Your task to perform on an android device: turn on the 24-hour format for clock Image 0: 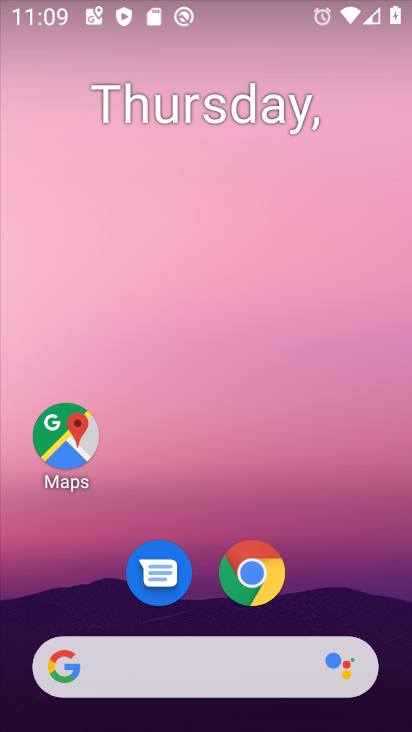
Step 0: drag from (311, 540) to (274, 103)
Your task to perform on an android device: turn on the 24-hour format for clock Image 1: 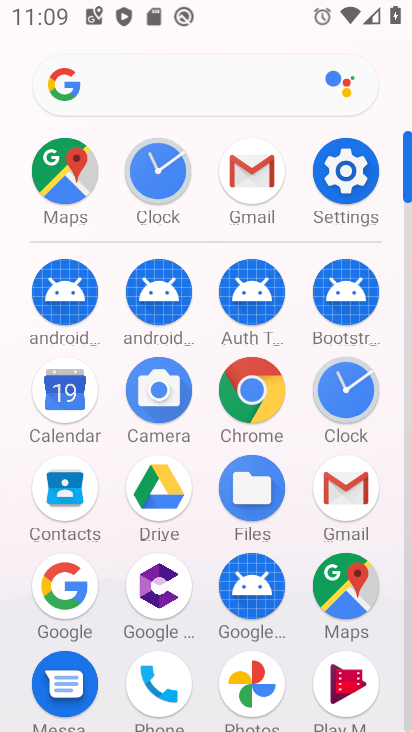
Step 1: click (322, 389)
Your task to perform on an android device: turn on the 24-hour format for clock Image 2: 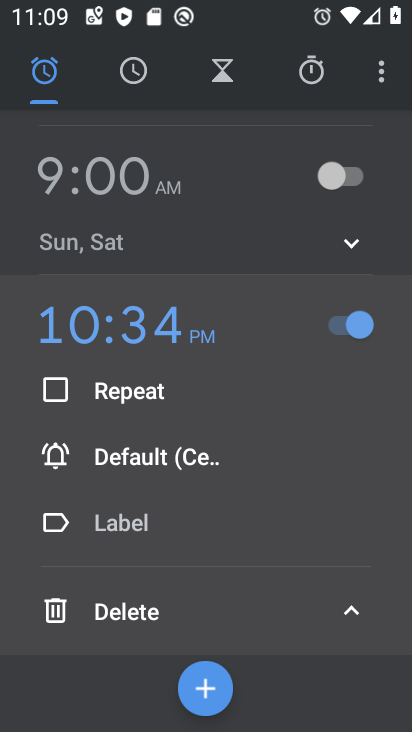
Step 2: click (385, 77)
Your task to perform on an android device: turn on the 24-hour format for clock Image 3: 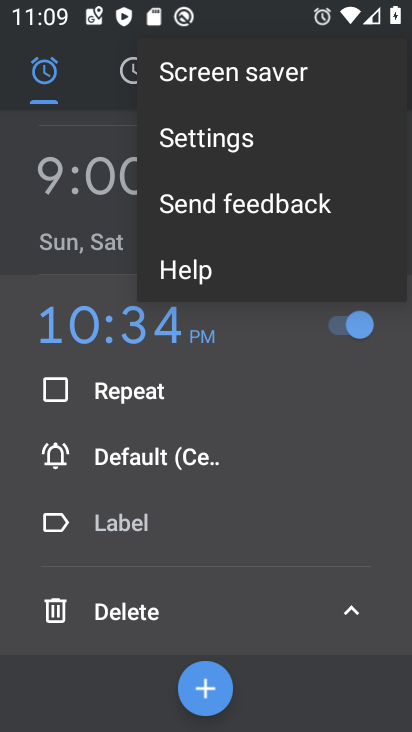
Step 3: click (217, 154)
Your task to perform on an android device: turn on the 24-hour format for clock Image 4: 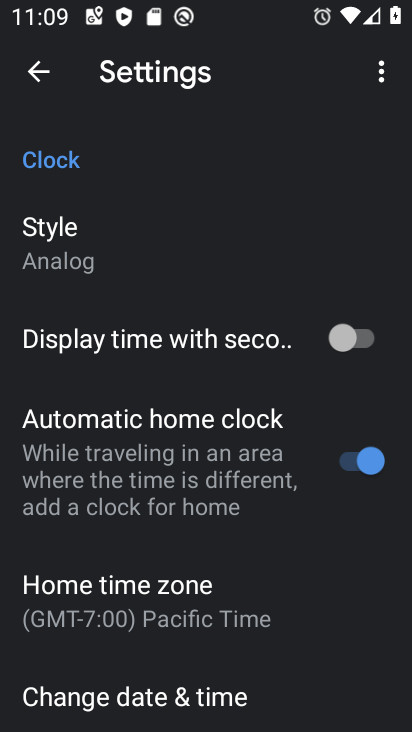
Step 4: drag from (163, 553) to (257, 219)
Your task to perform on an android device: turn on the 24-hour format for clock Image 5: 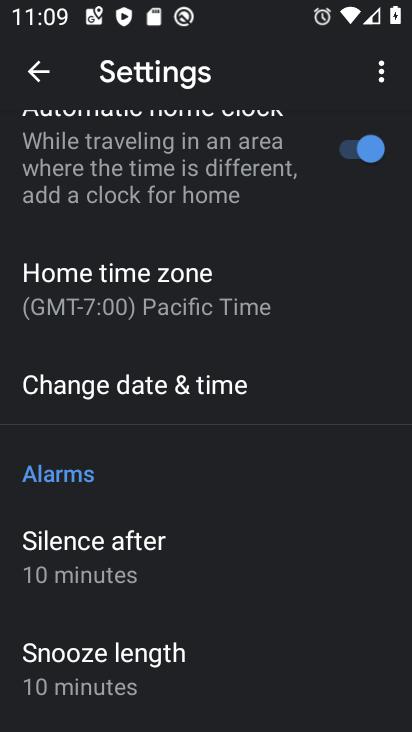
Step 5: click (157, 381)
Your task to perform on an android device: turn on the 24-hour format for clock Image 6: 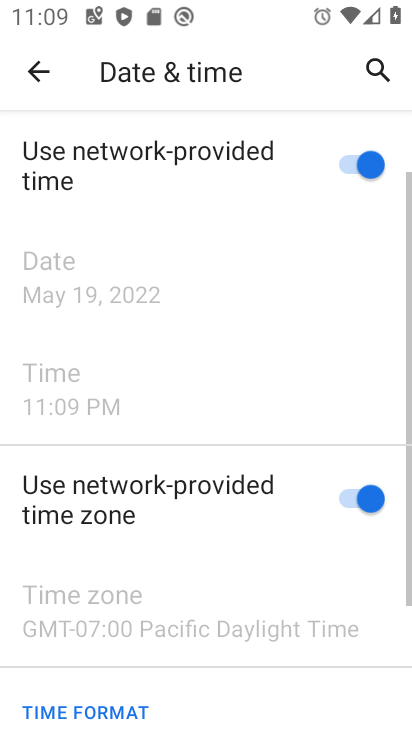
Step 6: drag from (203, 546) to (231, 220)
Your task to perform on an android device: turn on the 24-hour format for clock Image 7: 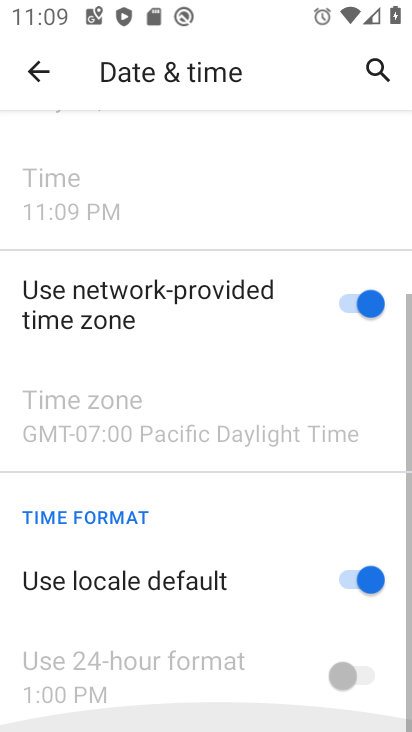
Step 7: click (240, 188)
Your task to perform on an android device: turn on the 24-hour format for clock Image 8: 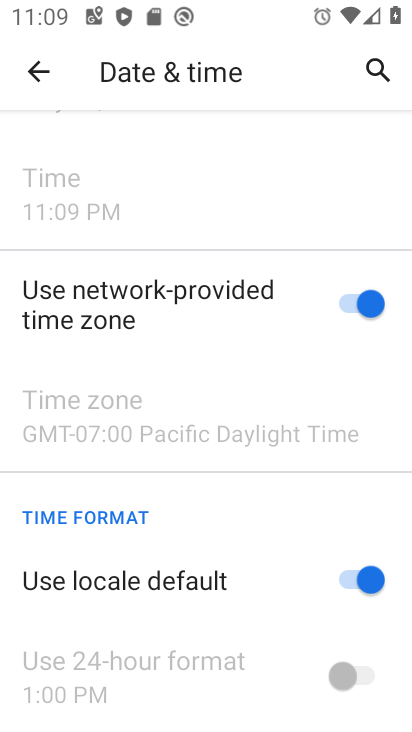
Step 8: click (333, 581)
Your task to perform on an android device: turn on the 24-hour format for clock Image 9: 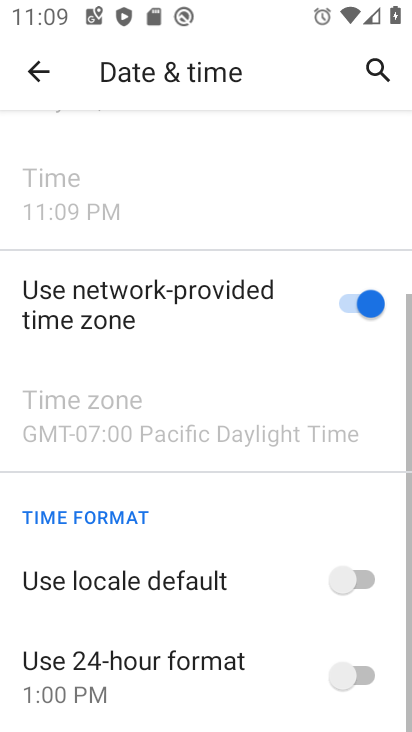
Step 9: click (363, 681)
Your task to perform on an android device: turn on the 24-hour format for clock Image 10: 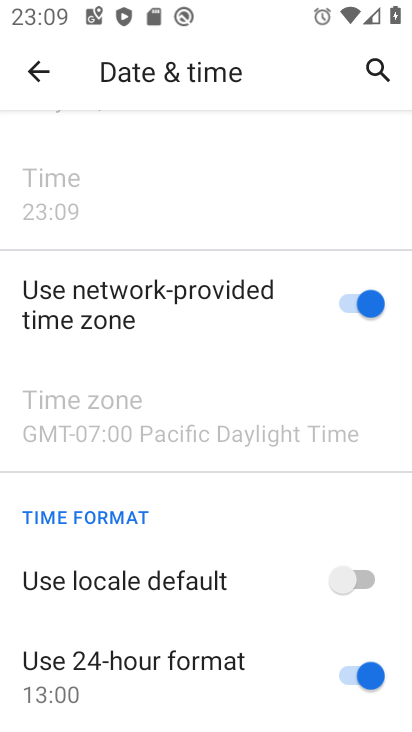
Step 10: task complete